Your task to perform on an android device: Is it going to rain tomorrow? Image 0: 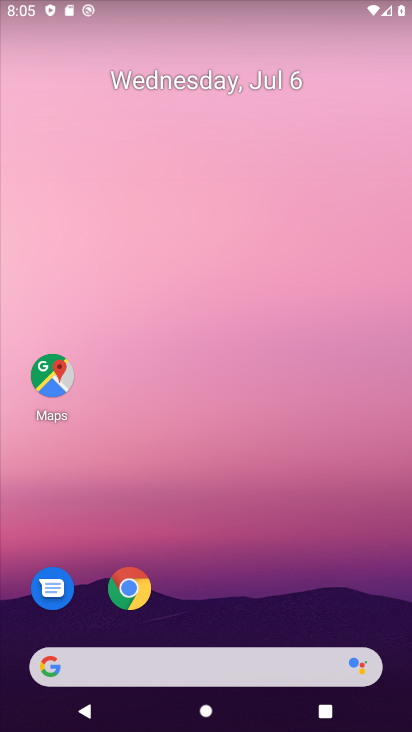
Step 0: drag from (283, 610) to (197, 307)
Your task to perform on an android device: Is it going to rain tomorrow? Image 1: 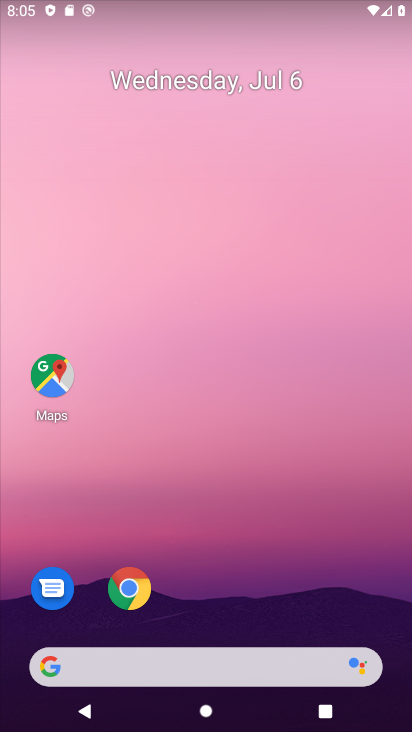
Step 1: drag from (281, 621) to (216, 129)
Your task to perform on an android device: Is it going to rain tomorrow? Image 2: 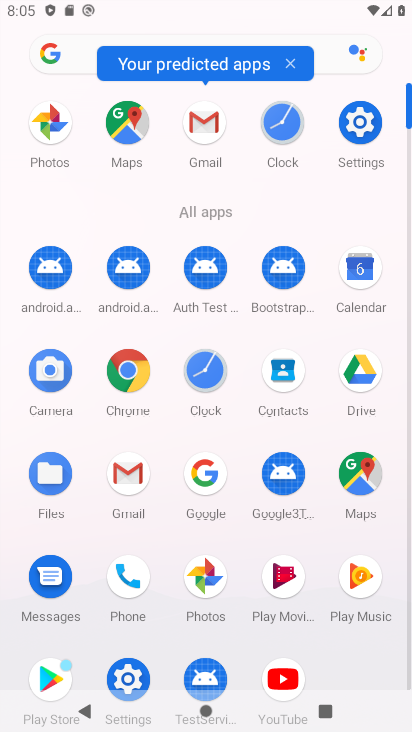
Step 2: click (132, 370)
Your task to perform on an android device: Is it going to rain tomorrow? Image 3: 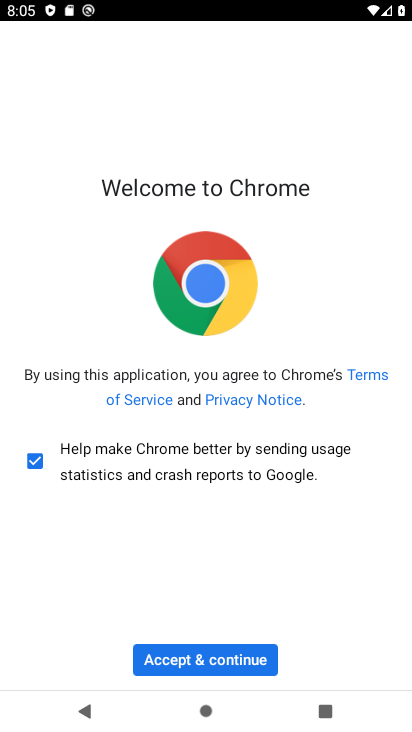
Step 3: click (222, 653)
Your task to perform on an android device: Is it going to rain tomorrow? Image 4: 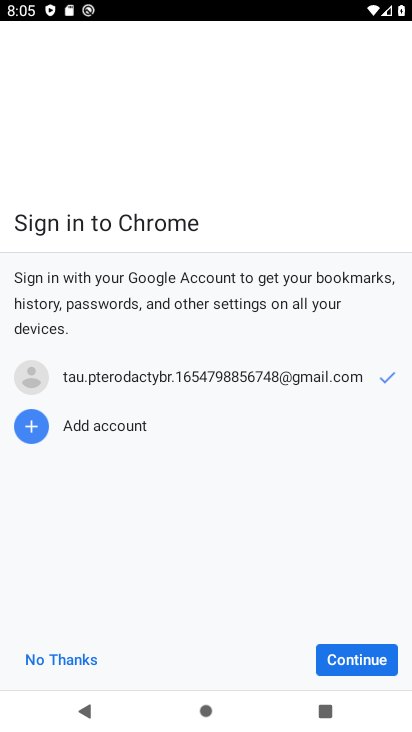
Step 4: click (361, 664)
Your task to perform on an android device: Is it going to rain tomorrow? Image 5: 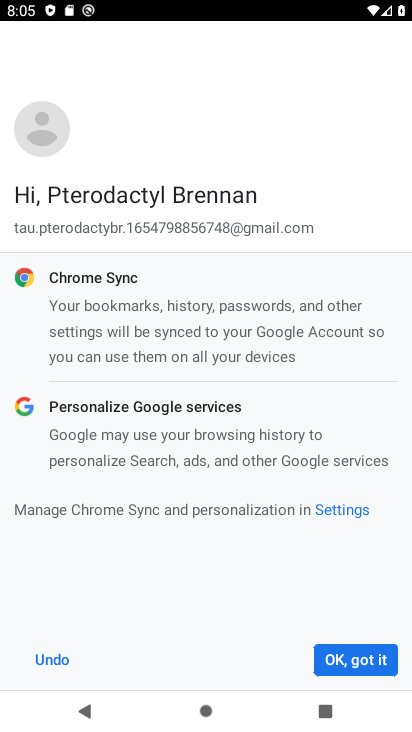
Step 5: click (355, 653)
Your task to perform on an android device: Is it going to rain tomorrow? Image 6: 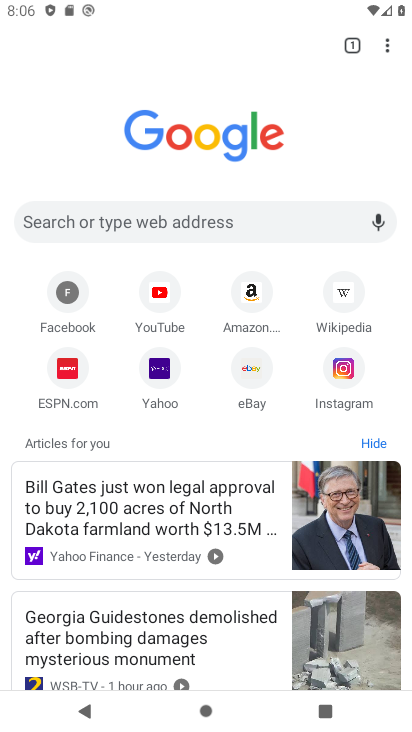
Step 6: click (87, 226)
Your task to perform on an android device: Is it going to rain tomorrow? Image 7: 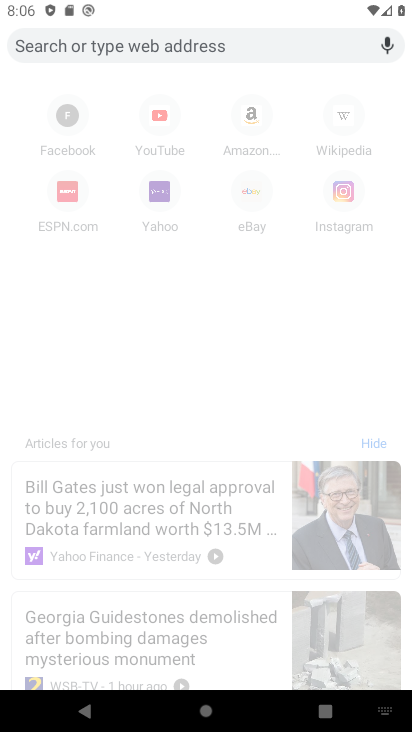
Step 7: type "Is it going to rain tomorrow?"
Your task to perform on an android device: Is it going to rain tomorrow? Image 8: 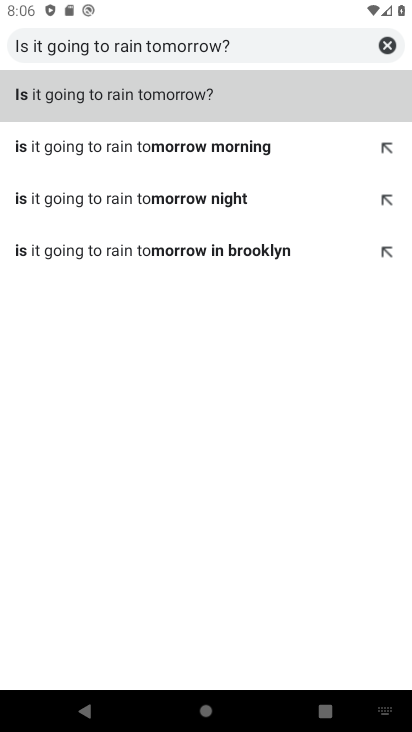
Step 8: click (144, 99)
Your task to perform on an android device: Is it going to rain tomorrow? Image 9: 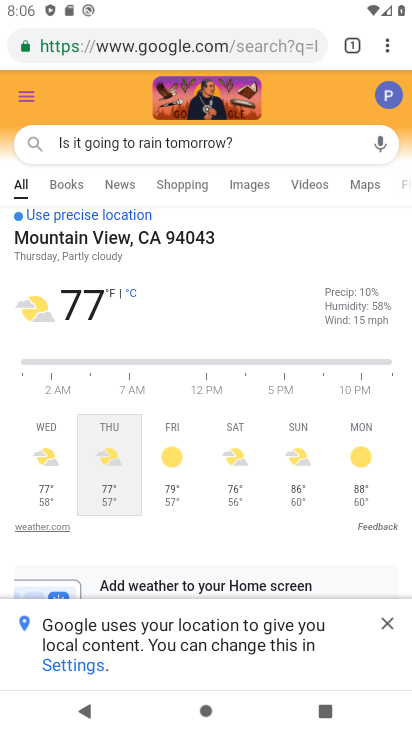
Step 9: click (390, 625)
Your task to perform on an android device: Is it going to rain tomorrow? Image 10: 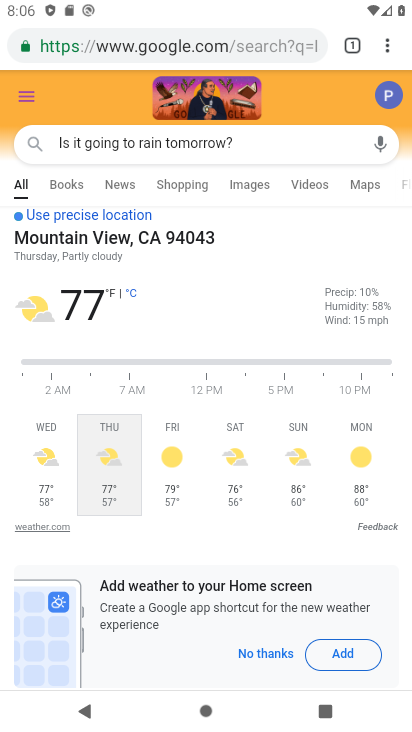
Step 10: task complete